Your task to perform on an android device: refresh tabs in the chrome app Image 0: 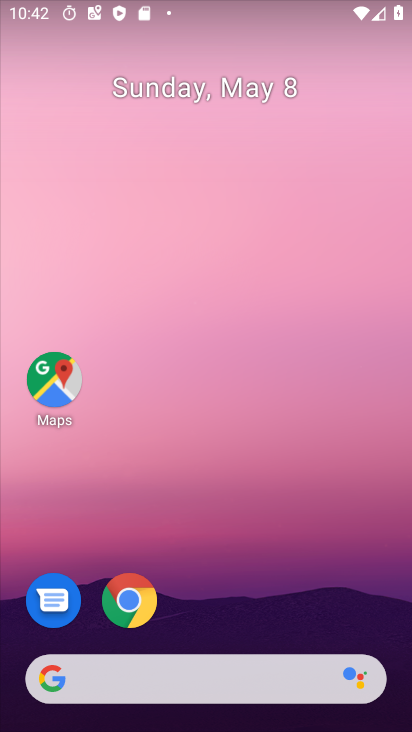
Step 0: click (129, 592)
Your task to perform on an android device: refresh tabs in the chrome app Image 1: 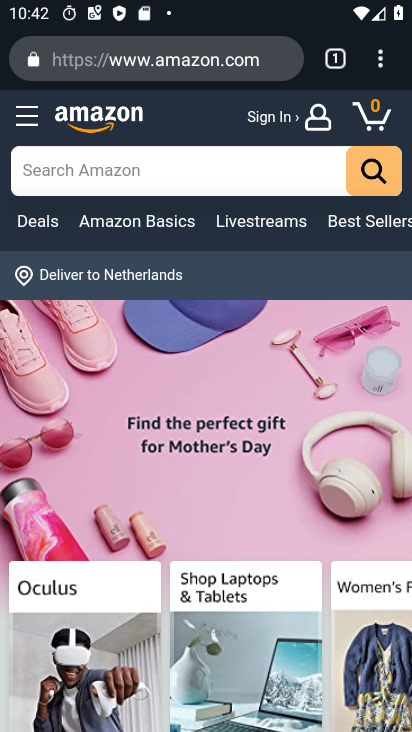
Step 1: click (383, 72)
Your task to perform on an android device: refresh tabs in the chrome app Image 2: 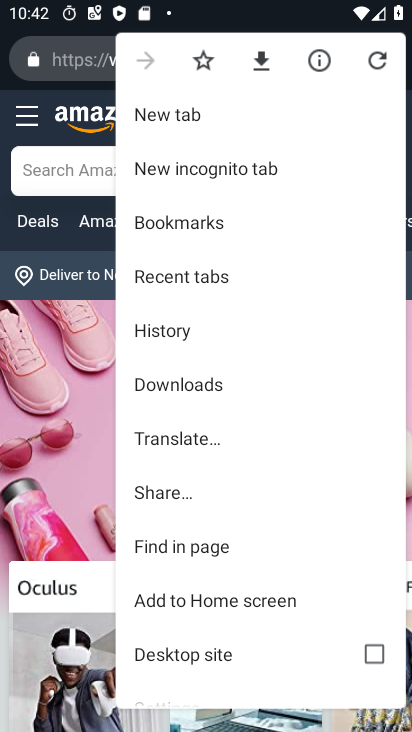
Step 2: click (369, 67)
Your task to perform on an android device: refresh tabs in the chrome app Image 3: 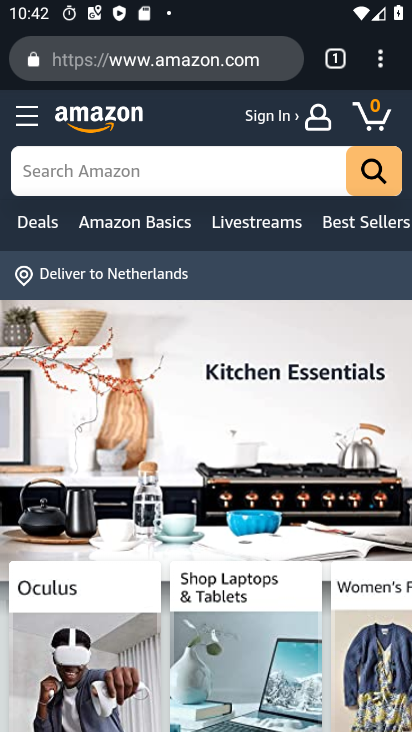
Step 3: task complete